Your task to perform on an android device: clear all cookies in the chrome app Image 0: 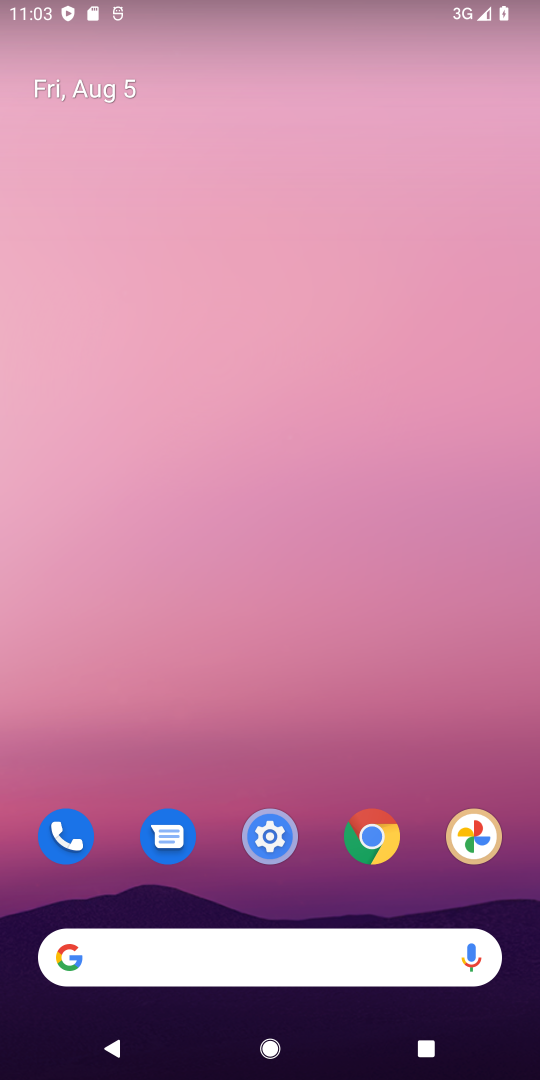
Step 0: drag from (302, 771) to (345, 64)
Your task to perform on an android device: clear all cookies in the chrome app Image 1: 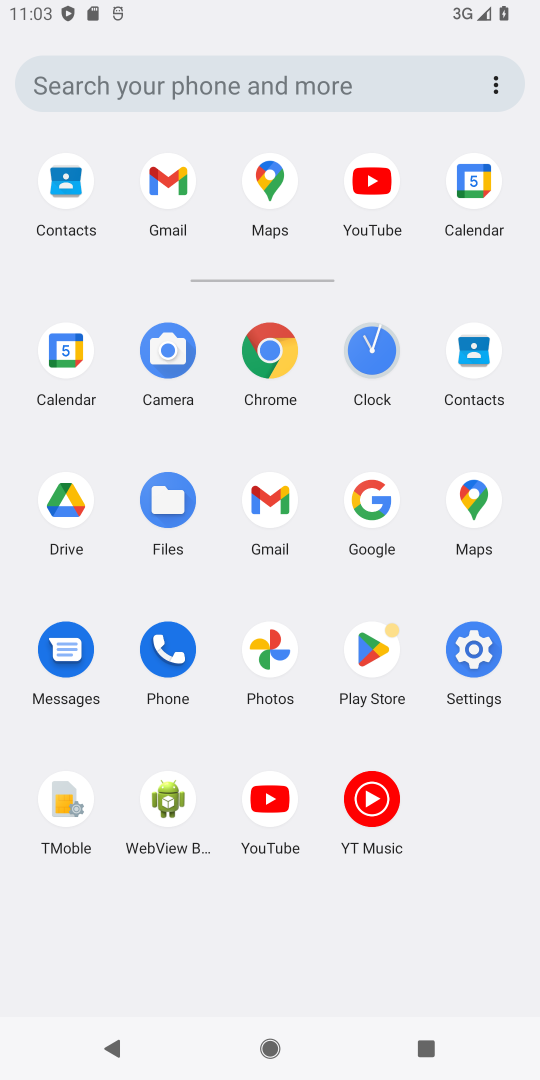
Step 1: click (267, 351)
Your task to perform on an android device: clear all cookies in the chrome app Image 2: 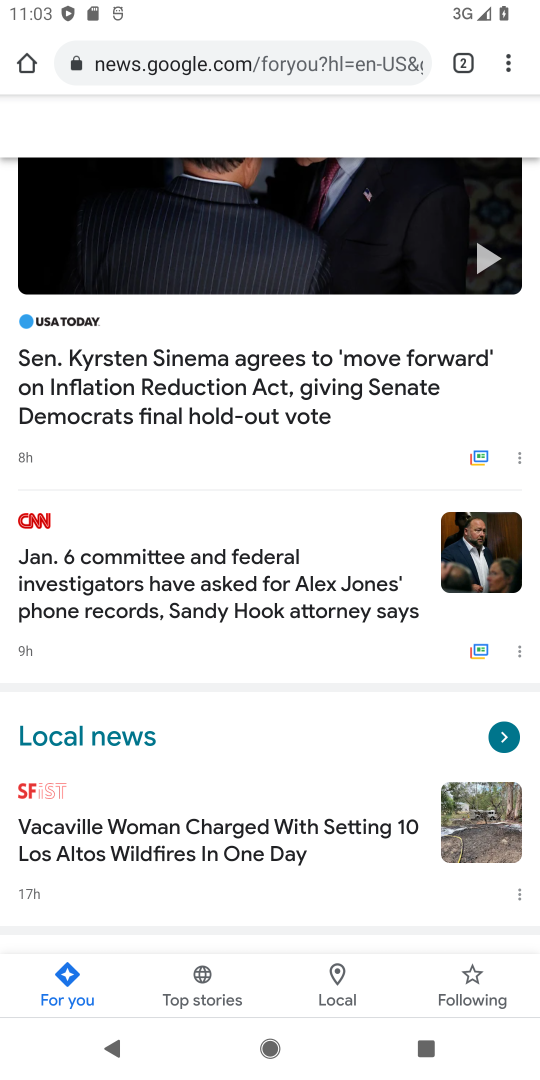
Step 2: drag from (518, 55) to (360, 832)
Your task to perform on an android device: clear all cookies in the chrome app Image 3: 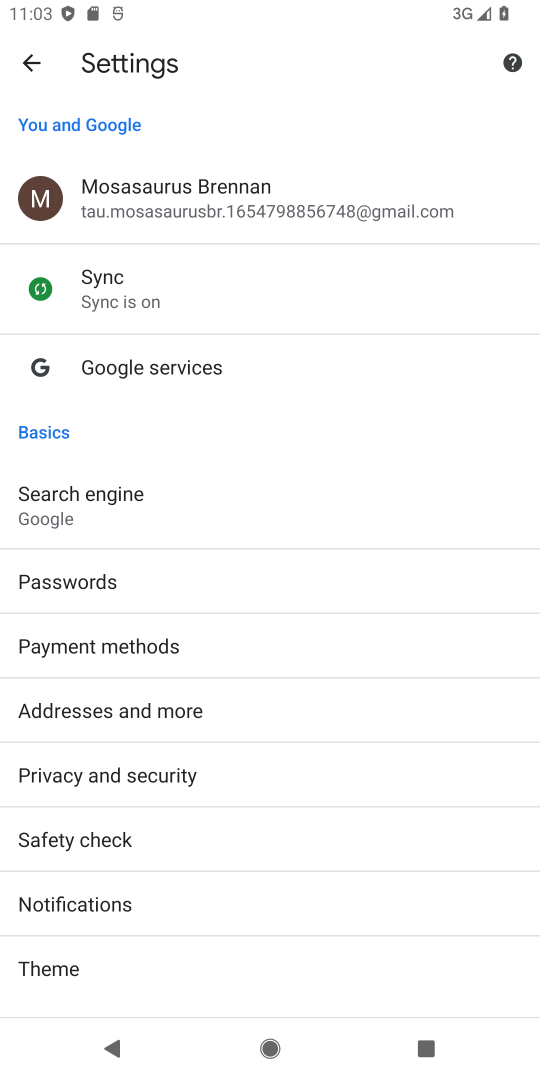
Step 3: click (31, 61)
Your task to perform on an android device: clear all cookies in the chrome app Image 4: 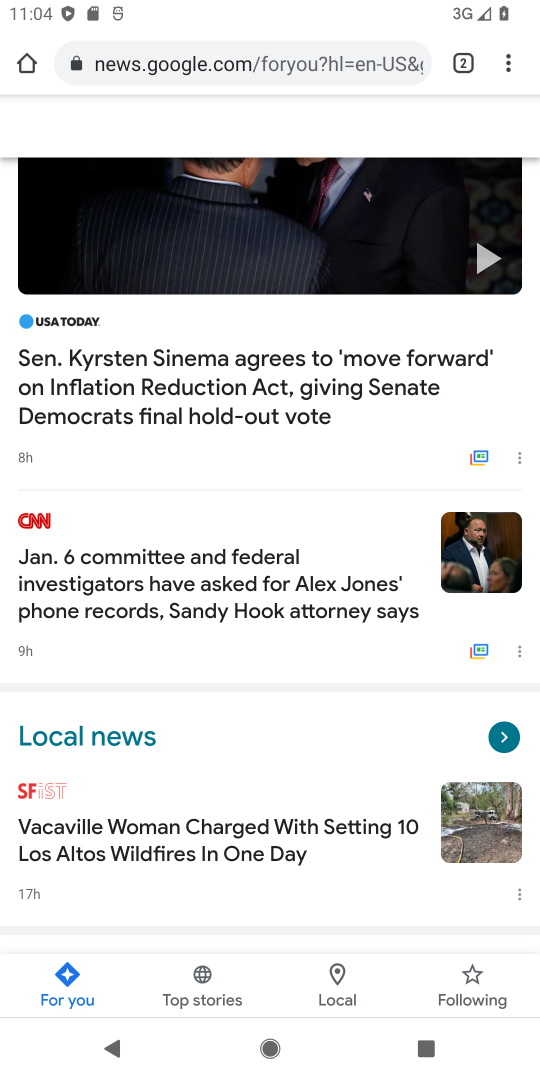
Step 4: drag from (517, 50) to (338, 321)
Your task to perform on an android device: clear all cookies in the chrome app Image 5: 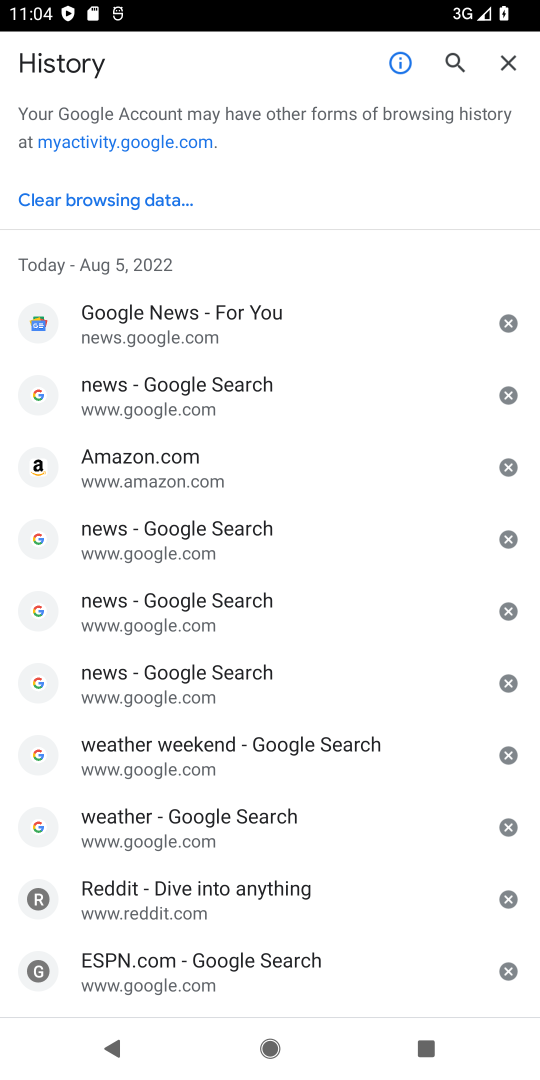
Step 5: click (156, 196)
Your task to perform on an android device: clear all cookies in the chrome app Image 6: 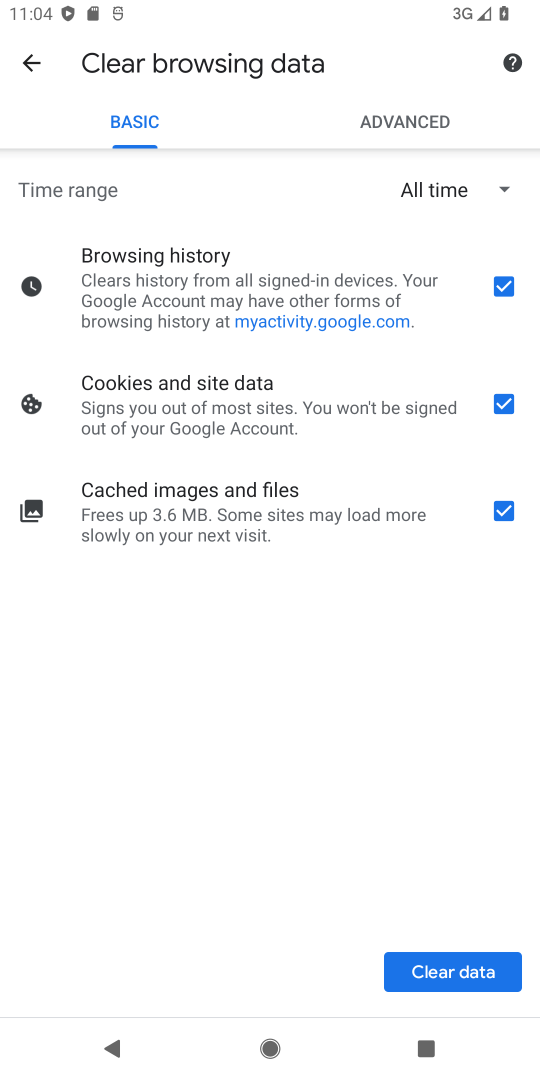
Step 6: click (476, 975)
Your task to perform on an android device: clear all cookies in the chrome app Image 7: 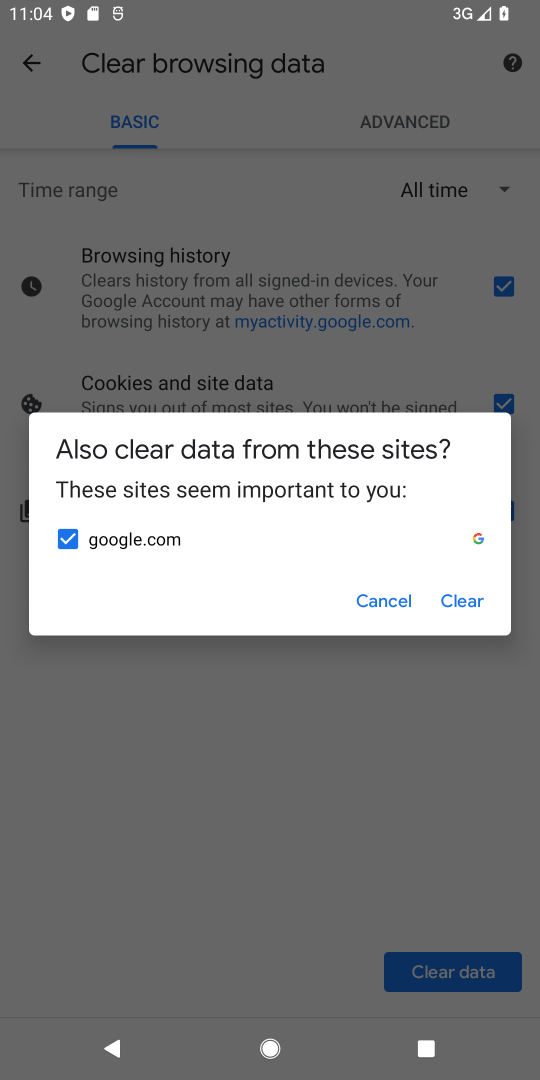
Step 7: click (459, 588)
Your task to perform on an android device: clear all cookies in the chrome app Image 8: 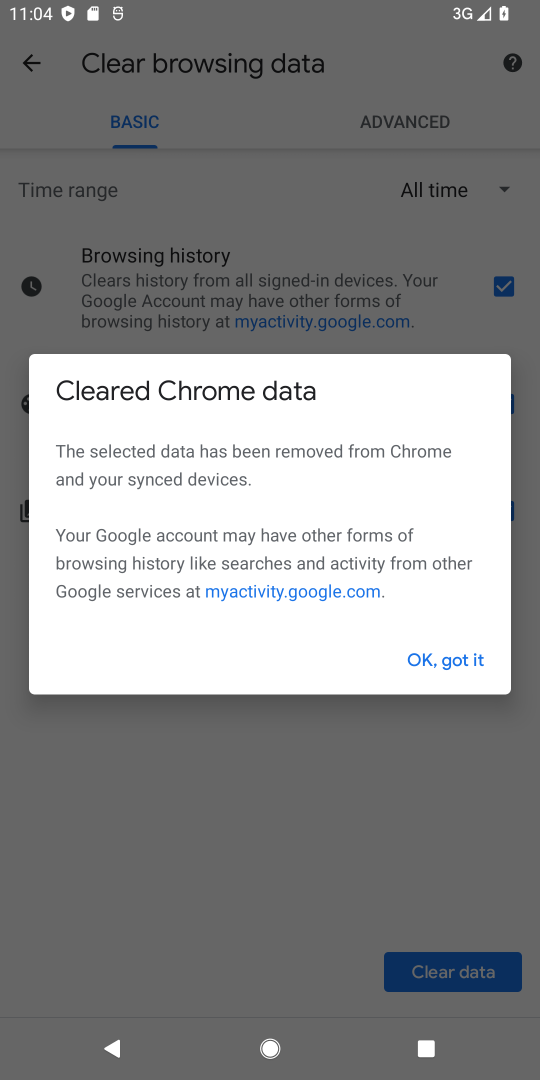
Step 8: click (434, 660)
Your task to perform on an android device: clear all cookies in the chrome app Image 9: 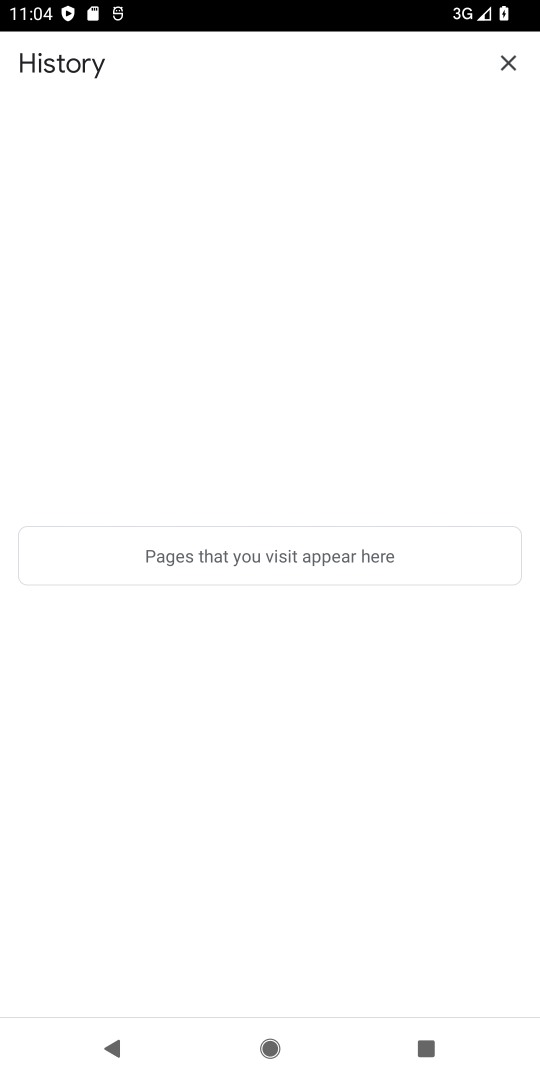
Step 9: task complete